Your task to perform on an android device: turn notification dots on Image 0: 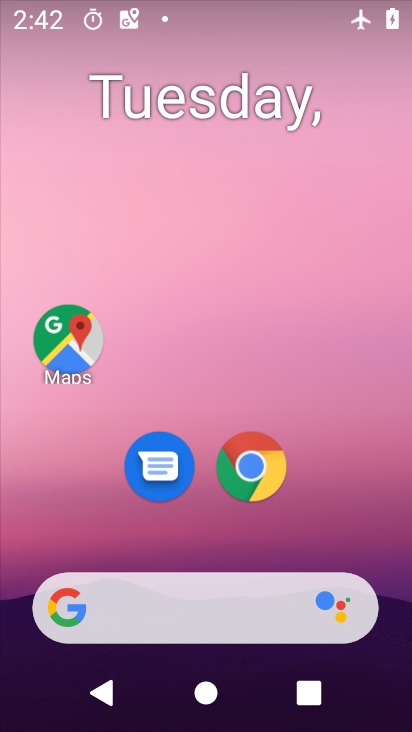
Step 0: drag from (347, 520) to (365, 155)
Your task to perform on an android device: turn notification dots on Image 1: 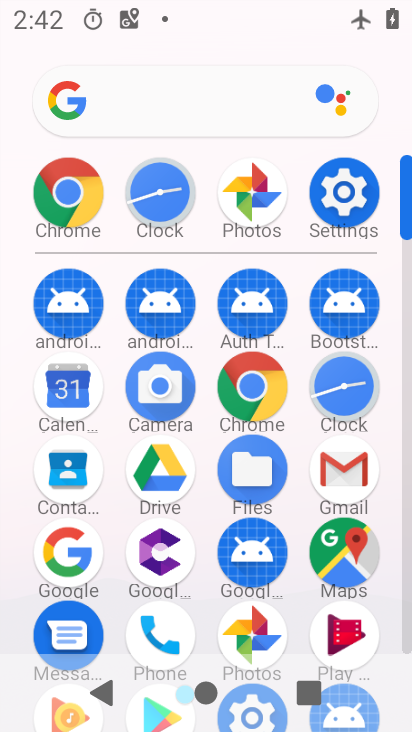
Step 1: click (352, 196)
Your task to perform on an android device: turn notification dots on Image 2: 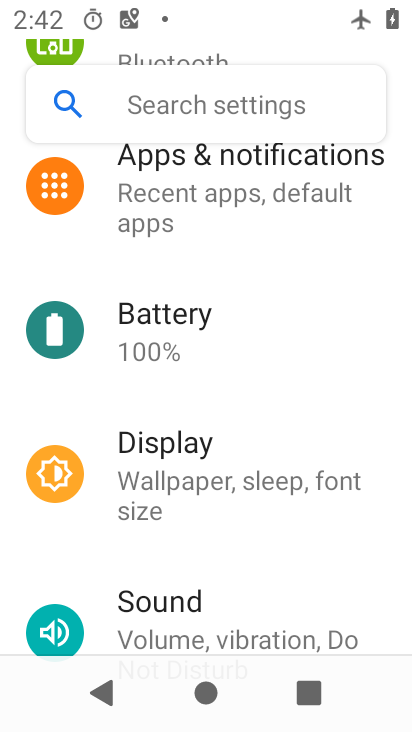
Step 2: drag from (369, 417) to (372, 290)
Your task to perform on an android device: turn notification dots on Image 3: 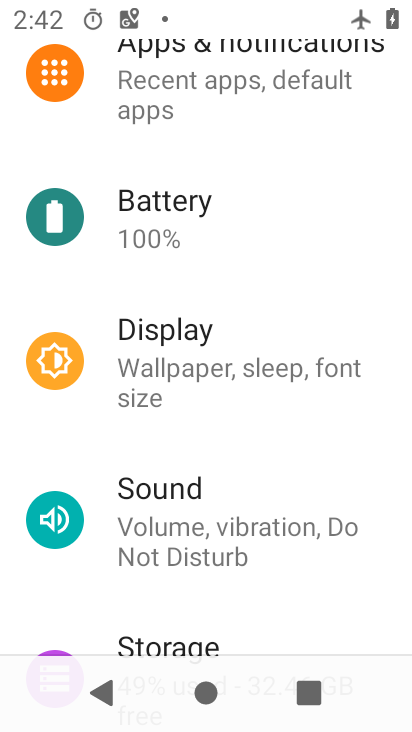
Step 3: drag from (351, 194) to (328, 383)
Your task to perform on an android device: turn notification dots on Image 4: 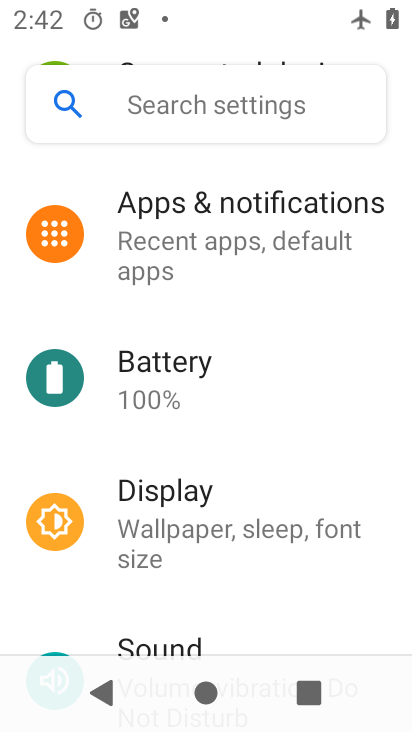
Step 4: drag from (323, 164) to (301, 369)
Your task to perform on an android device: turn notification dots on Image 5: 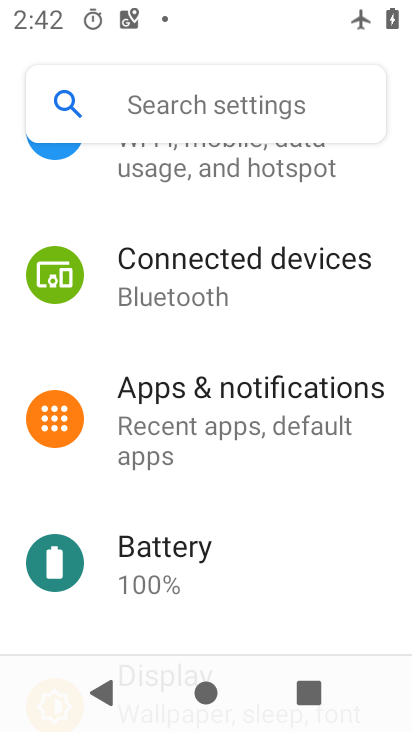
Step 5: click (293, 401)
Your task to perform on an android device: turn notification dots on Image 6: 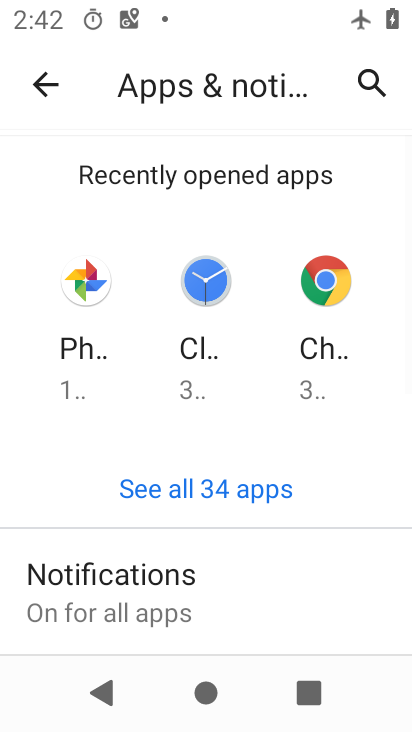
Step 6: drag from (295, 537) to (316, 412)
Your task to perform on an android device: turn notification dots on Image 7: 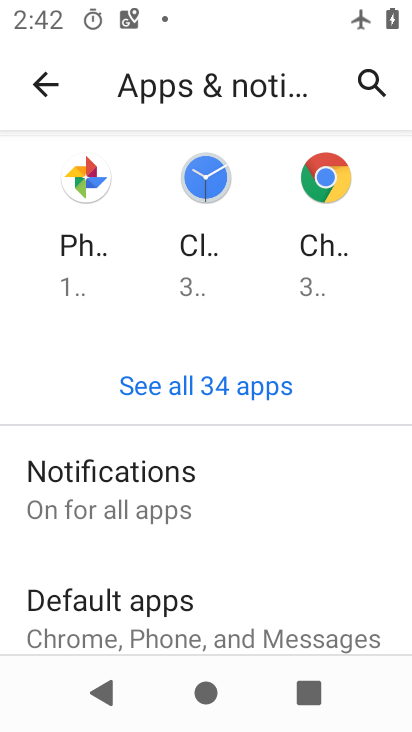
Step 7: click (201, 499)
Your task to perform on an android device: turn notification dots on Image 8: 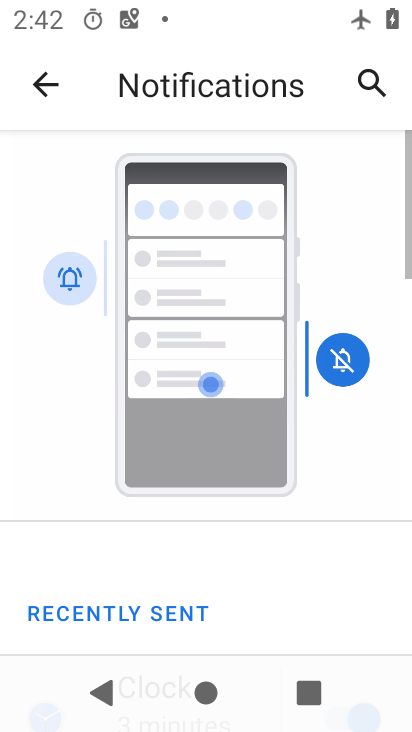
Step 8: drag from (284, 520) to (297, 360)
Your task to perform on an android device: turn notification dots on Image 9: 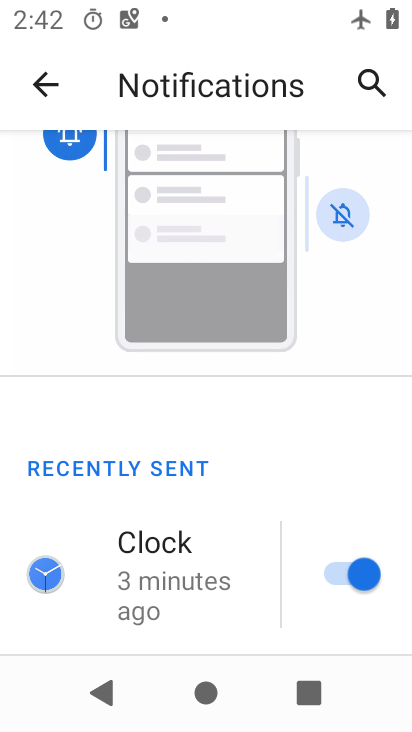
Step 9: drag from (248, 549) to (256, 412)
Your task to perform on an android device: turn notification dots on Image 10: 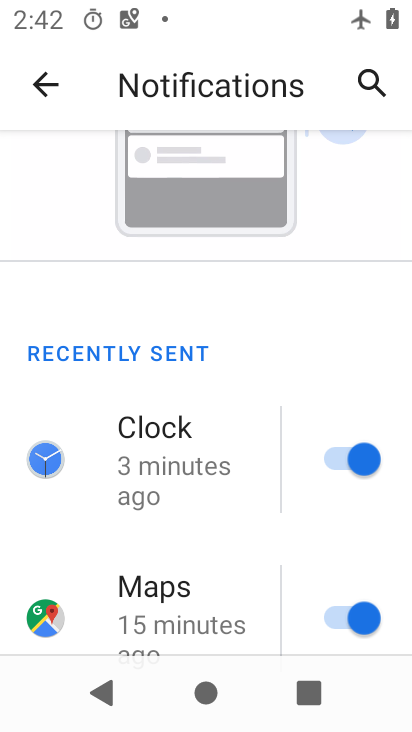
Step 10: drag from (236, 561) to (255, 429)
Your task to perform on an android device: turn notification dots on Image 11: 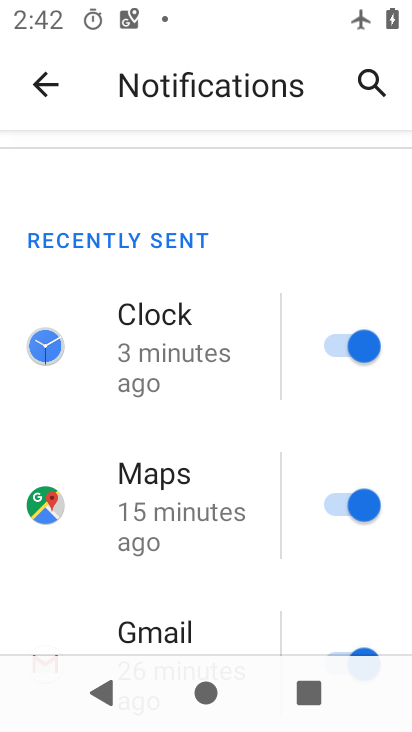
Step 11: drag from (250, 591) to (251, 458)
Your task to perform on an android device: turn notification dots on Image 12: 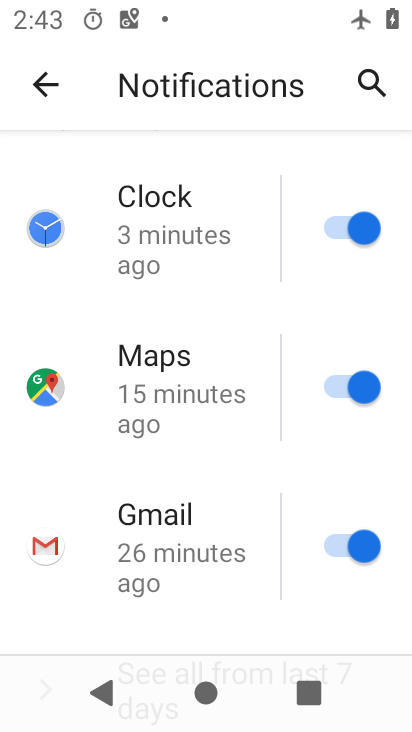
Step 12: drag from (262, 515) to (261, 400)
Your task to perform on an android device: turn notification dots on Image 13: 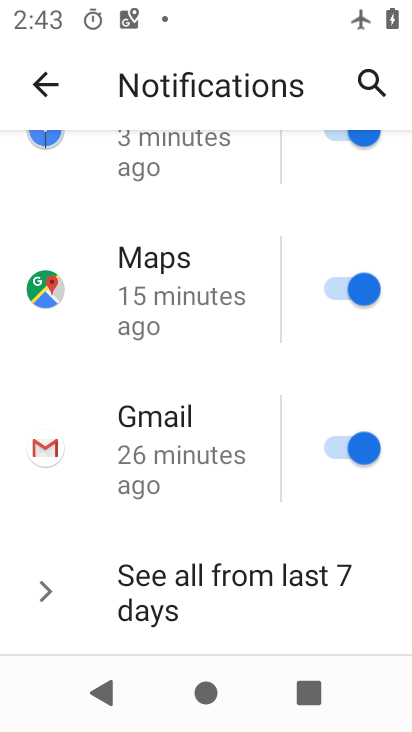
Step 13: drag from (250, 571) to (271, 412)
Your task to perform on an android device: turn notification dots on Image 14: 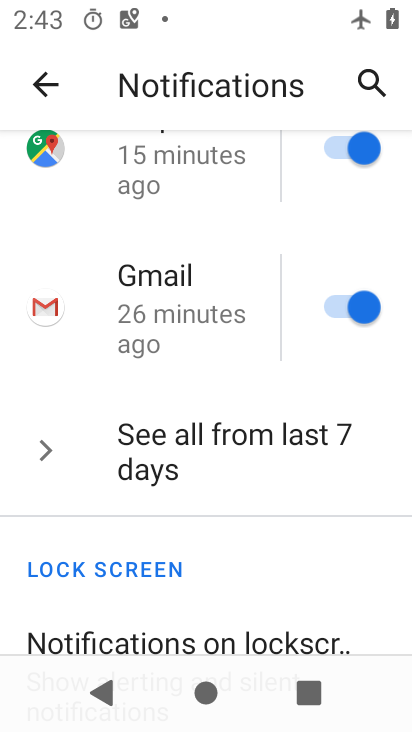
Step 14: drag from (314, 524) to (306, 330)
Your task to perform on an android device: turn notification dots on Image 15: 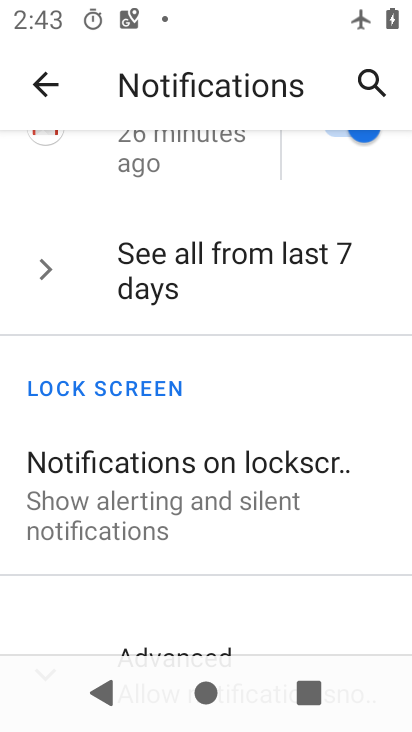
Step 15: drag from (316, 563) to (314, 356)
Your task to perform on an android device: turn notification dots on Image 16: 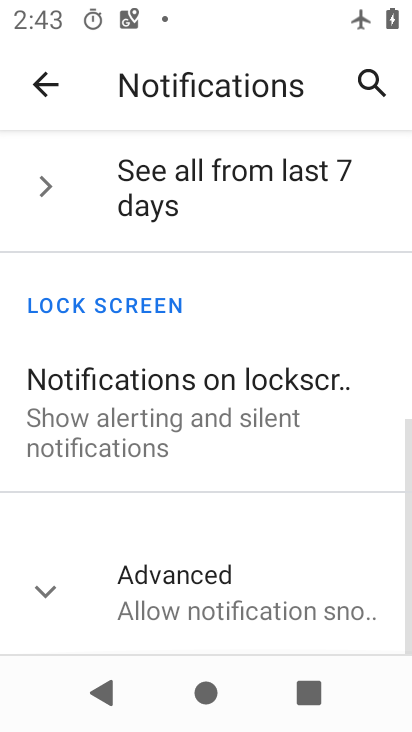
Step 16: click (284, 594)
Your task to perform on an android device: turn notification dots on Image 17: 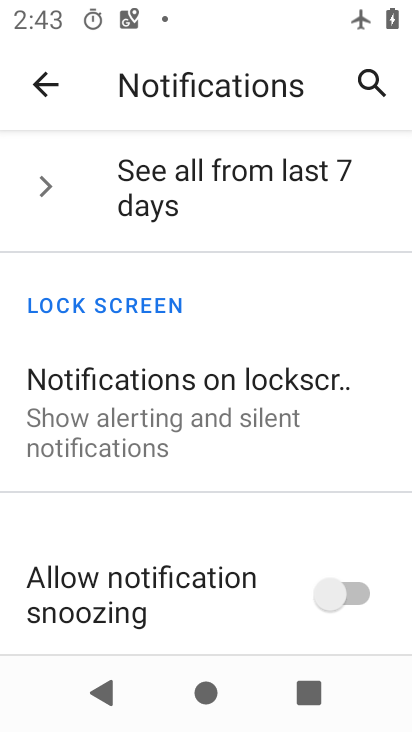
Step 17: task complete